Your task to perform on an android device: turn off airplane mode Image 0: 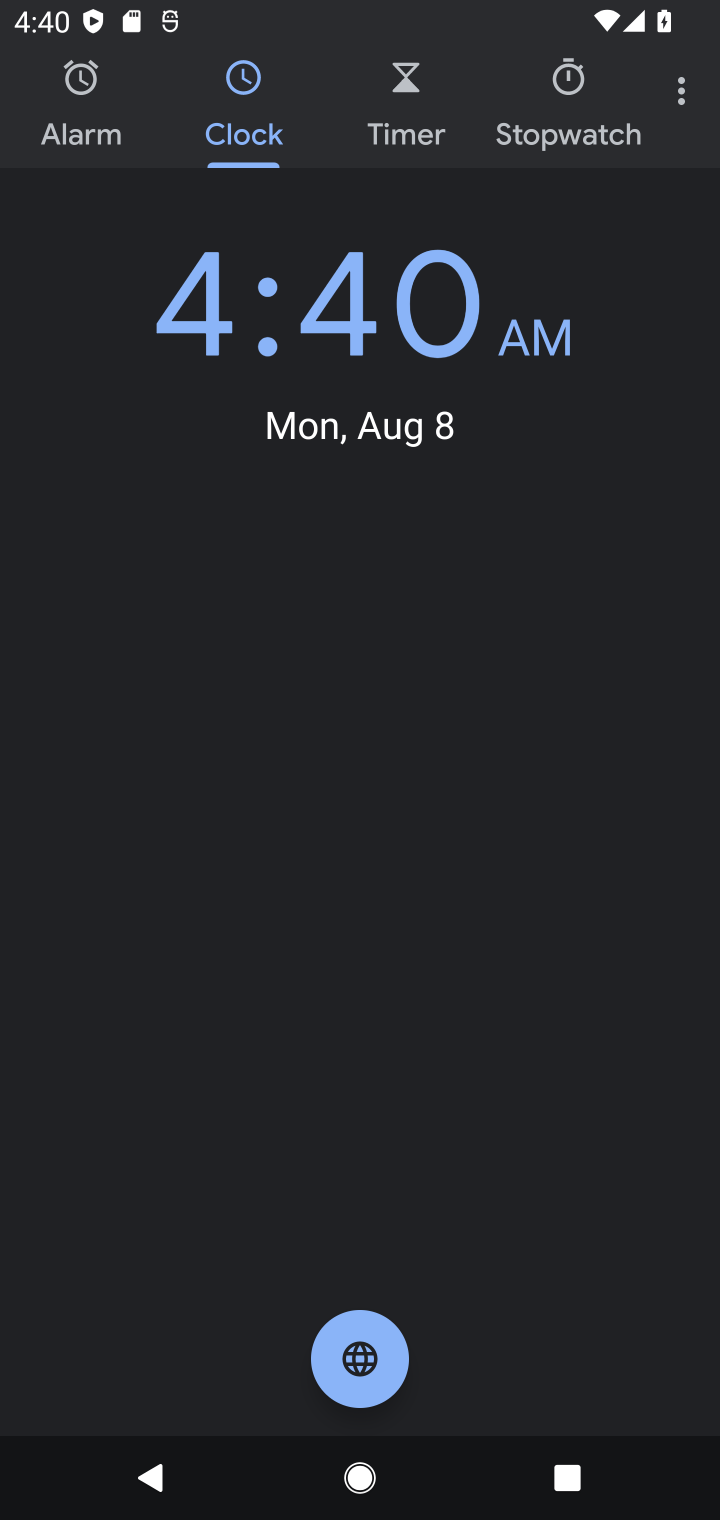
Step 0: press home button
Your task to perform on an android device: turn off airplane mode Image 1: 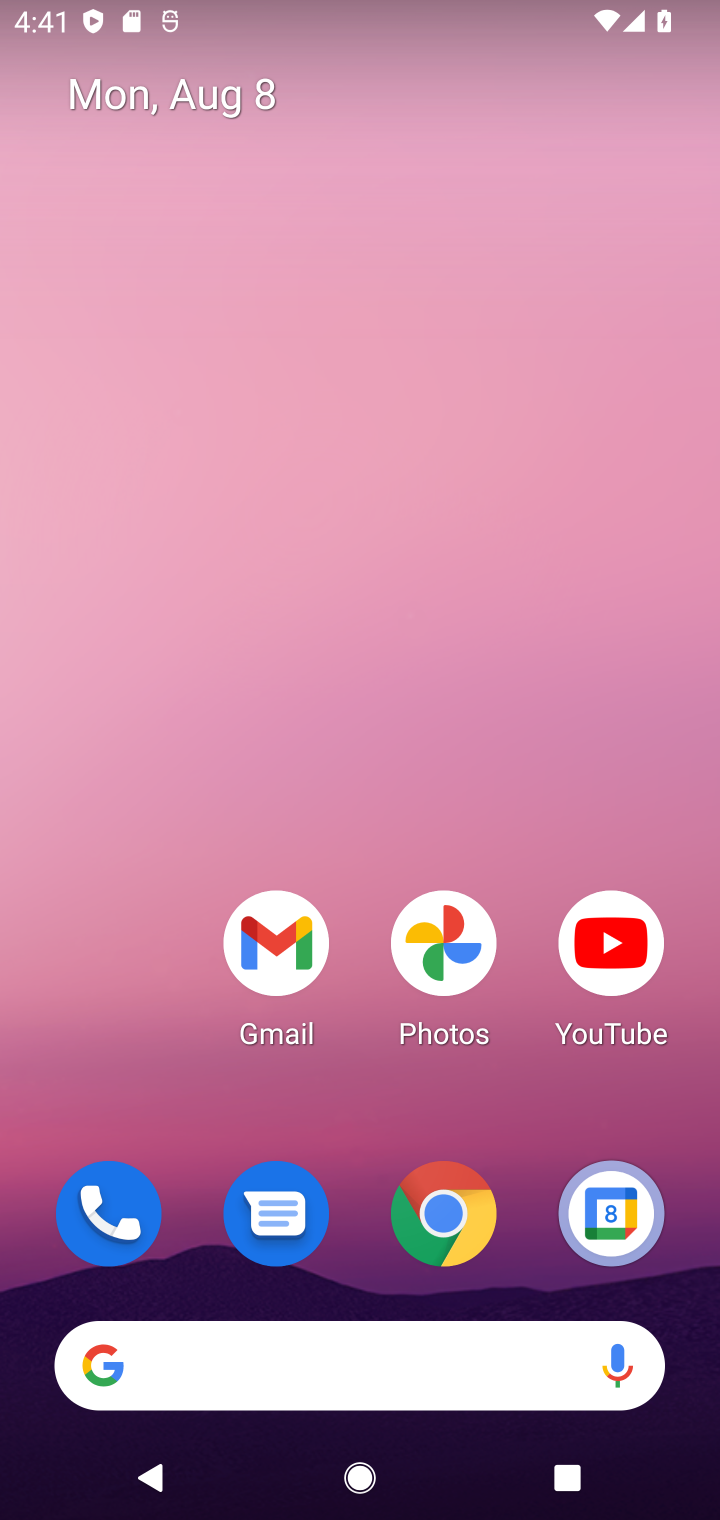
Step 1: drag from (365, 1111) to (467, 36)
Your task to perform on an android device: turn off airplane mode Image 2: 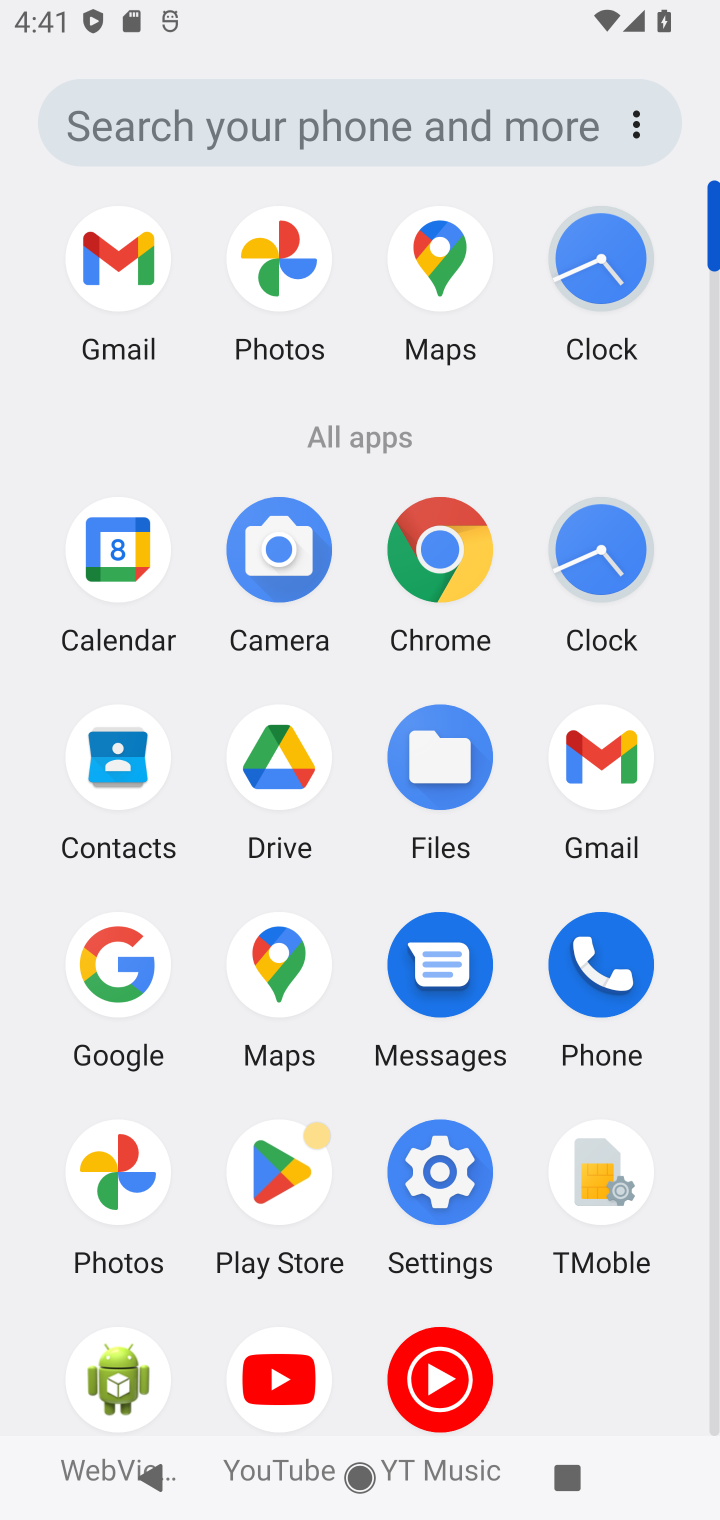
Step 2: click (437, 1175)
Your task to perform on an android device: turn off airplane mode Image 3: 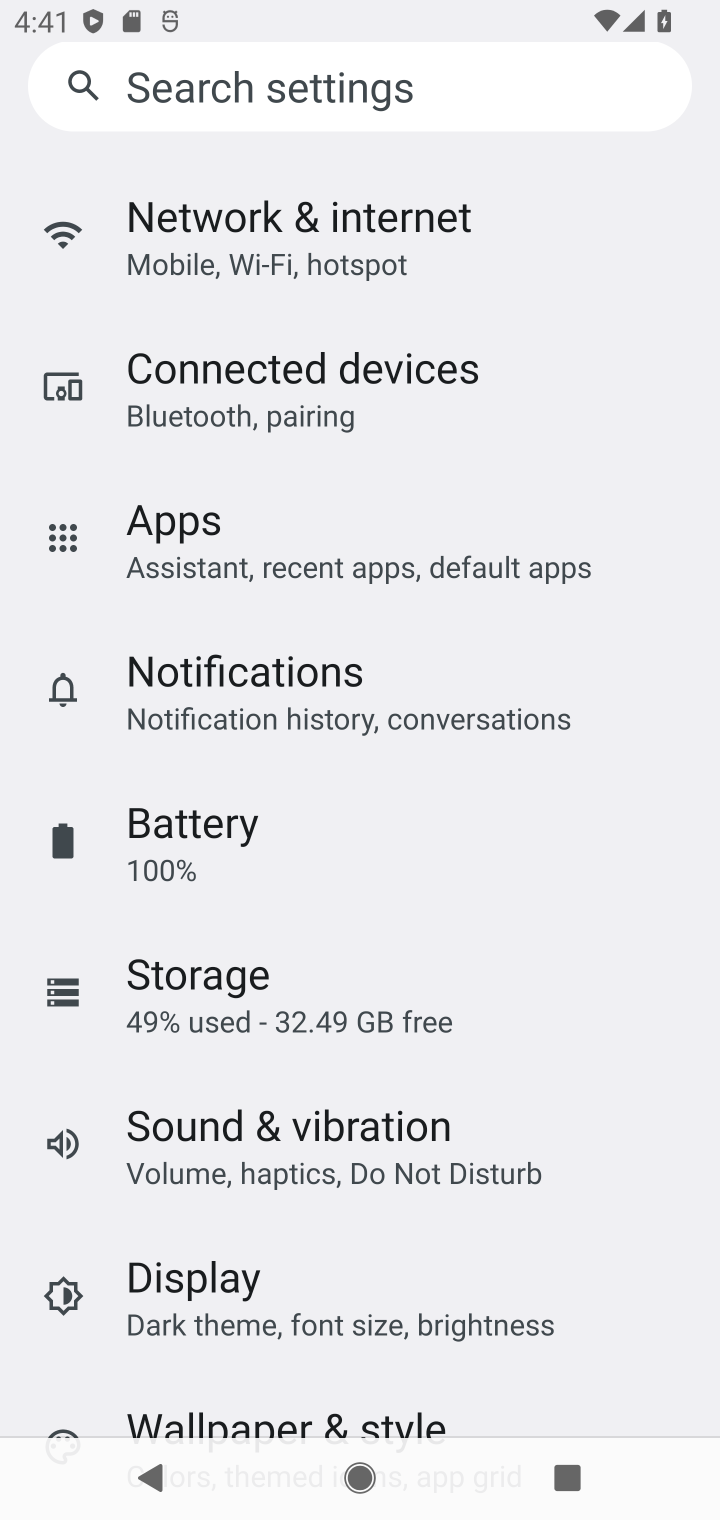
Step 3: click (453, 288)
Your task to perform on an android device: turn off airplane mode Image 4: 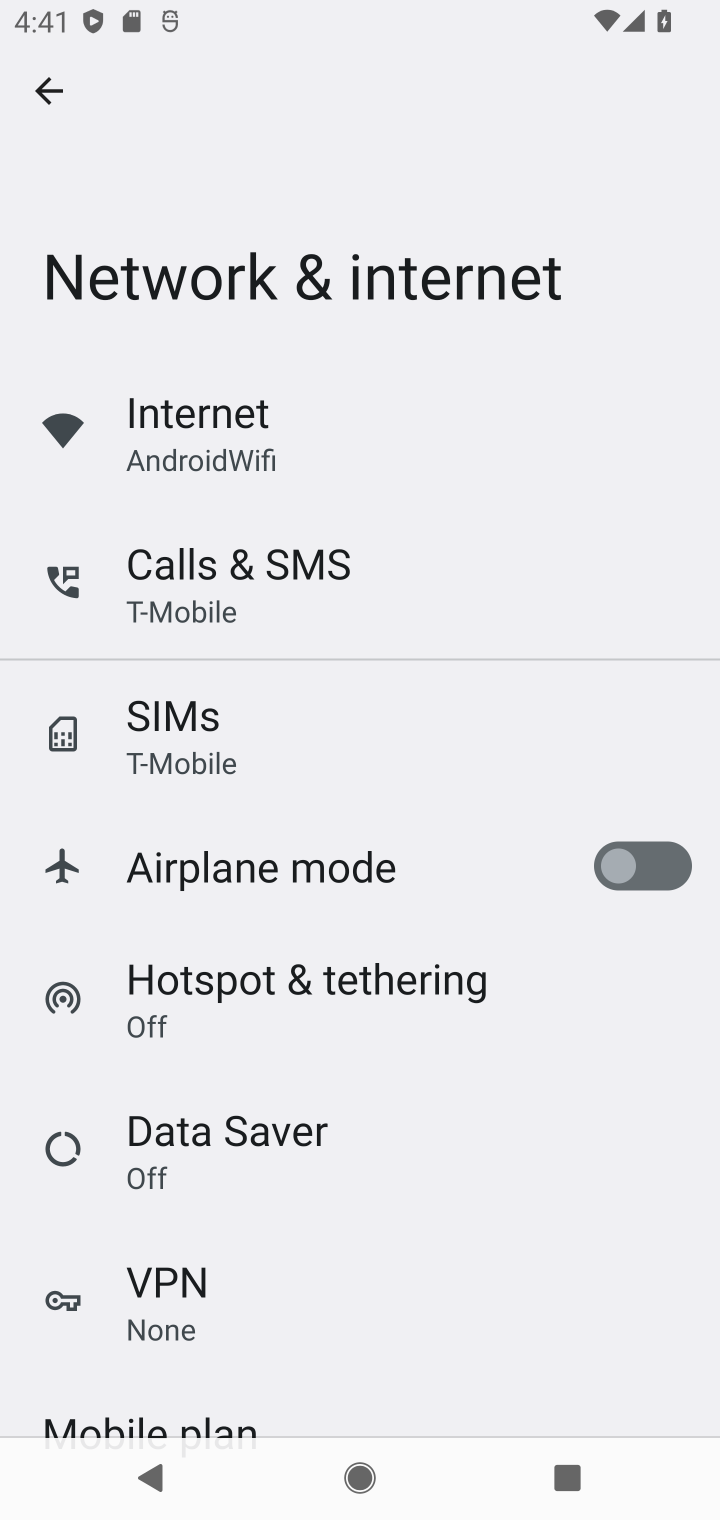
Step 4: task complete